Your task to perform on an android device: Open calendar and show me the fourth week of next month Image 0: 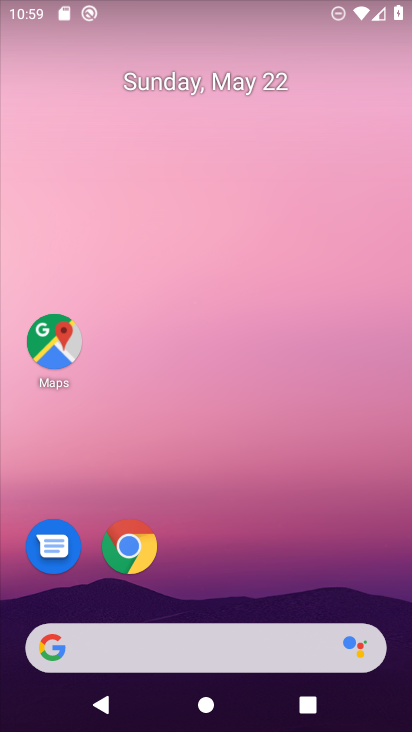
Step 0: drag from (196, 599) to (254, 39)
Your task to perform on an android device: Open calendar and show me the fourth week of next month Image 1: 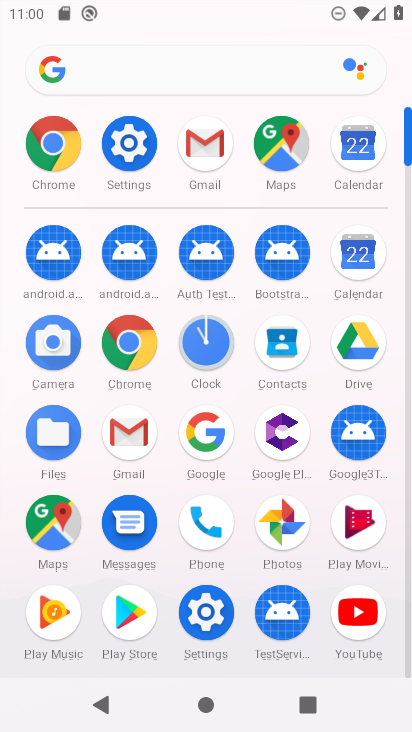
Step 1: click (367, 241)
Your task to perform on an android device: Open calendar and show me the fourth week of next month Image 2: 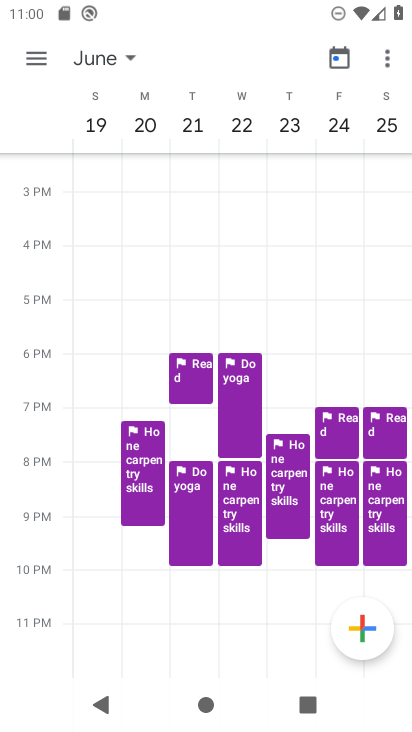
Step 2: task complete